Your task to perform on an android device: What's the weather going to be this weekend? Image 0: 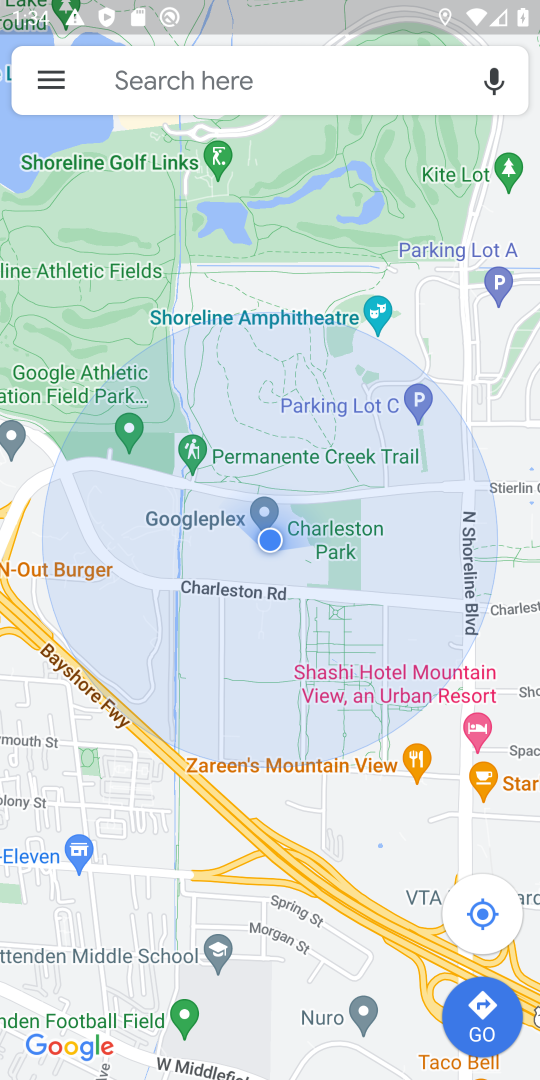
Step 0: press home button
Your task to perform on an android device: What's the weather going to be this weekend? Image 1: 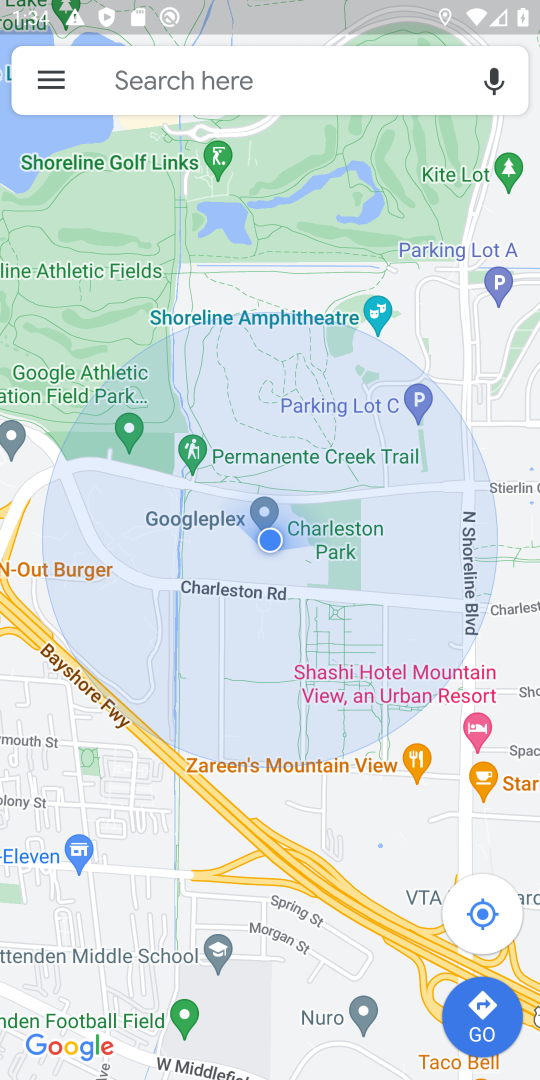
Step 1: press home button
Your task to perform on an android device: What's the weather going to be this weekend? Image 2: 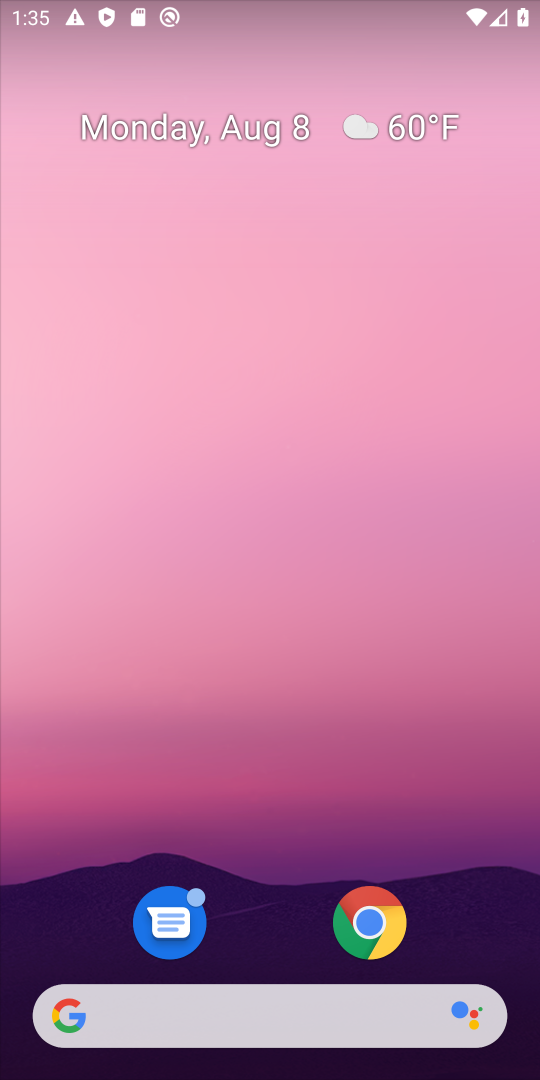
Step 2: click (423, 117)
Your task to perform on an android device: What's the weather going to be this weekend? Image 3: 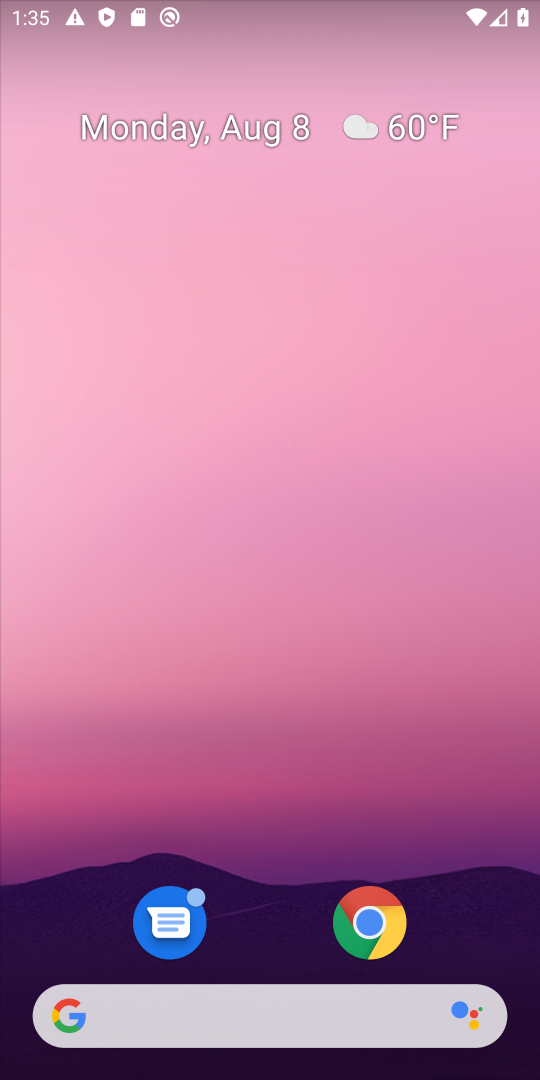
Step 3: click (380, 121)
Your task to perform on an android device: What's the weather going to be this weekend? Image 4: 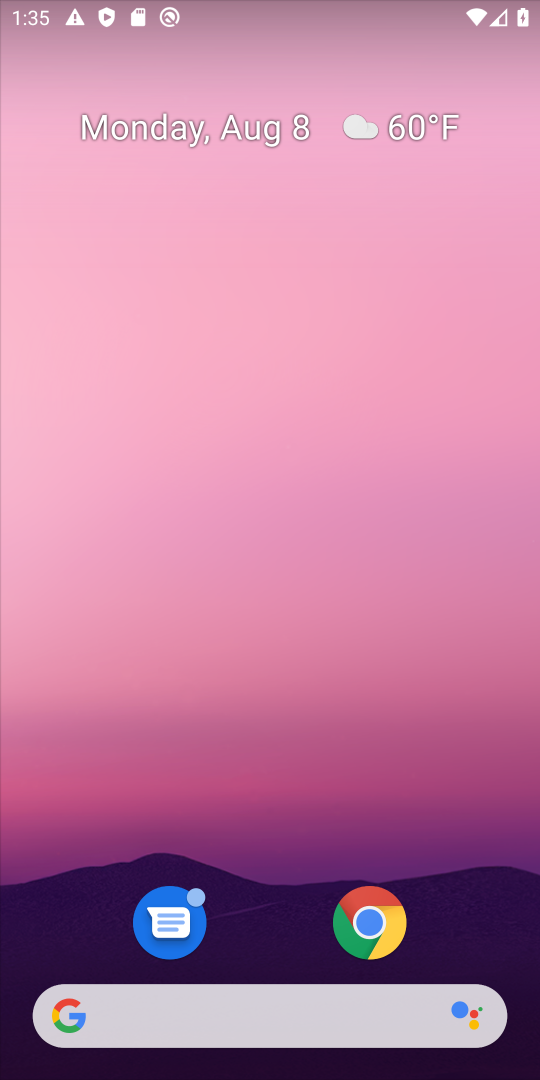
Step 4: click (409, 123)
Your task to perform on an android device: What's the weather going to be this weekend? Image 5: 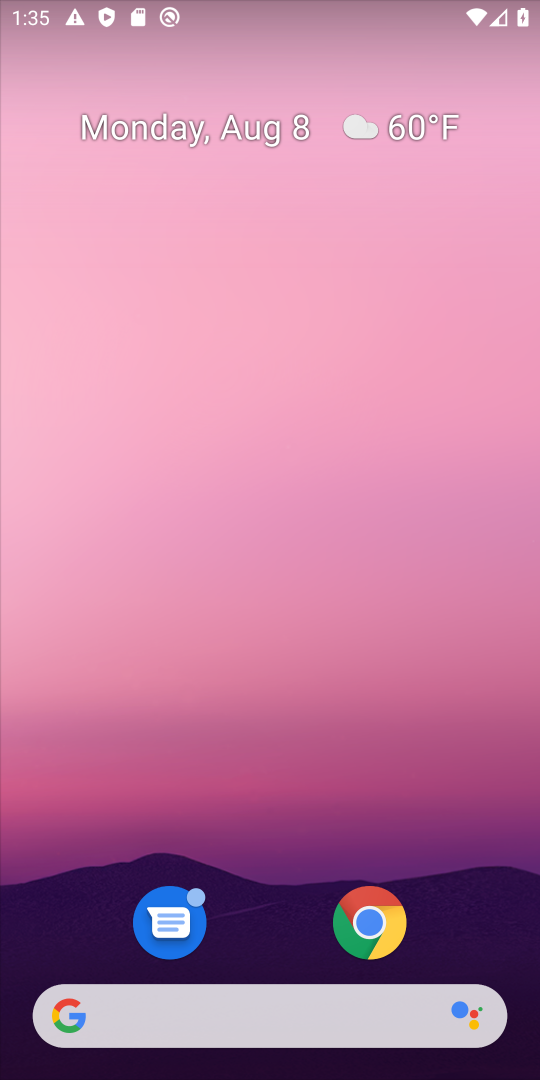
Step 5: drag from (323, 710) to (530, 53)
Your task to perform on an android device: What's the weather going to be this weekend? Image 6: 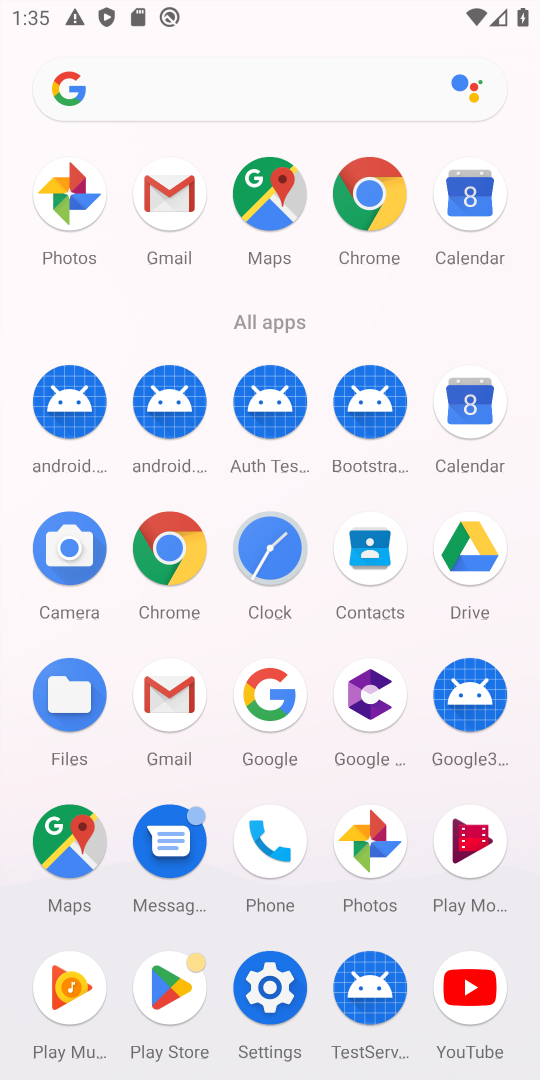
Step 6: click (378, 190)
Your task to perform on an android device: What's the weather going to be this weekend? Image 7: 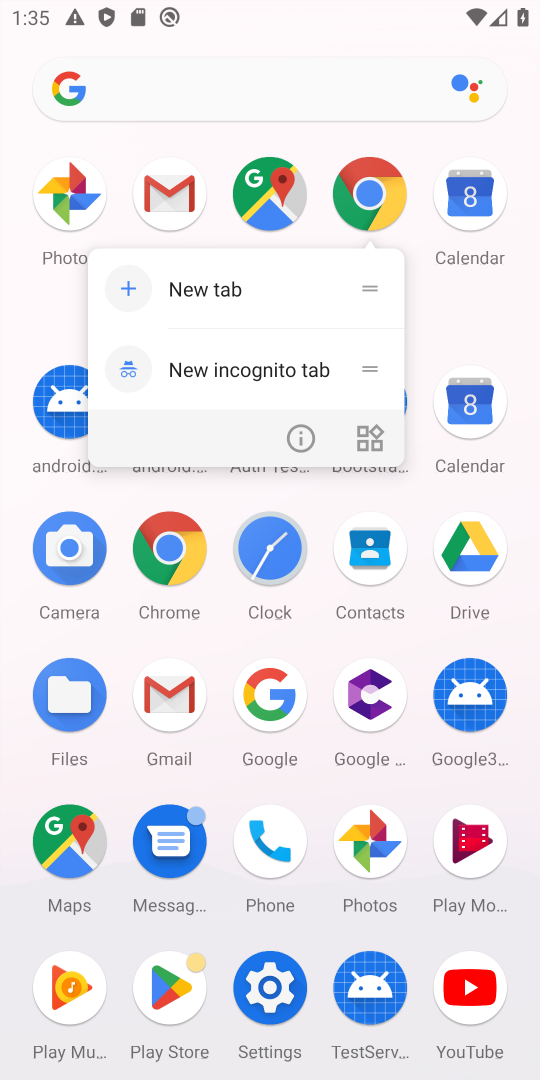
Step 7: click (362, 201)
Your task to perform on an android device: What's the weather going to be this weekend? Image 8: 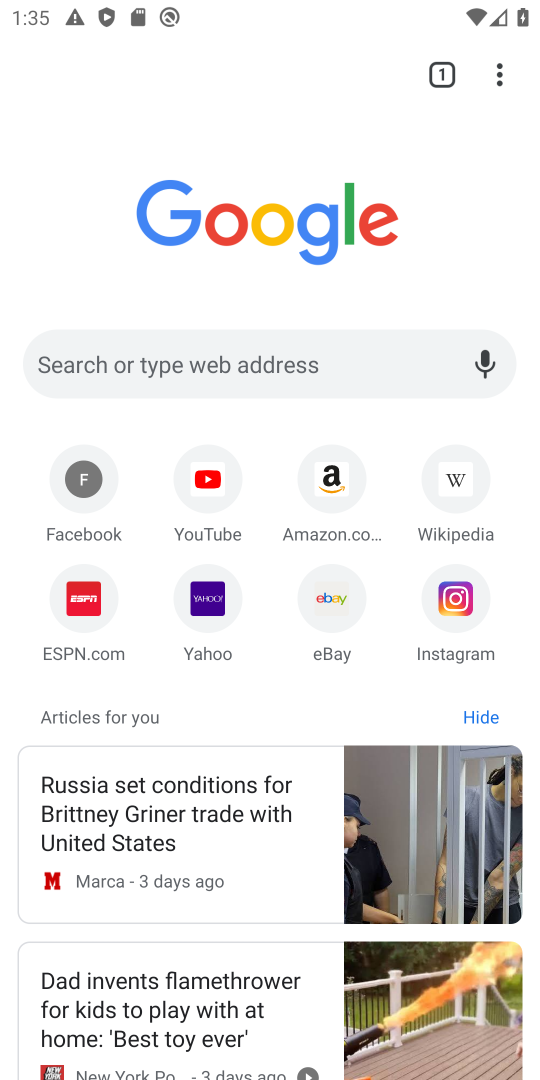
Step 8: click (274, 372)
Your task to perform on an android device: What's the weather going to be this weekend? Image 9: 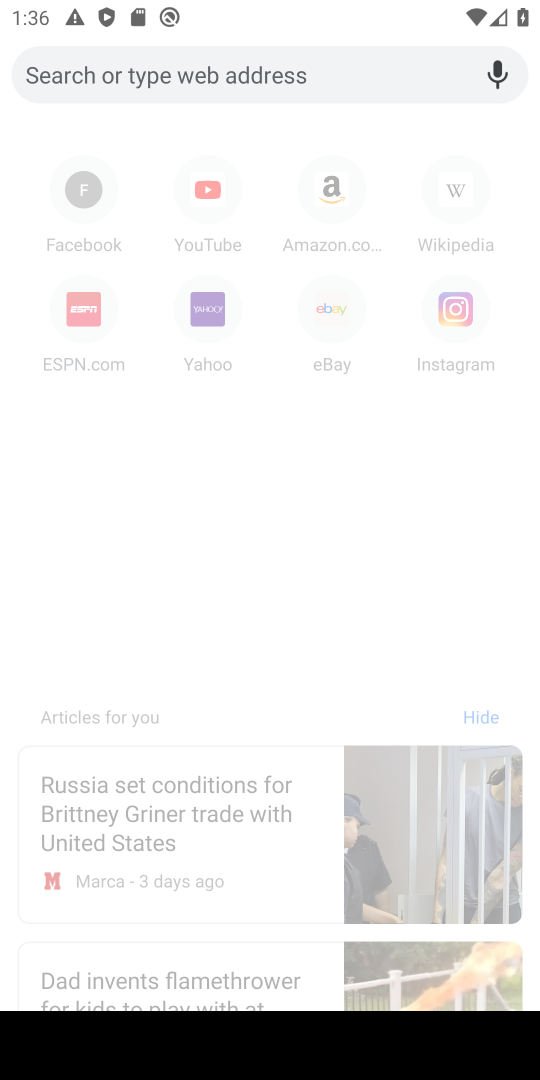
Step 9: type "weather"
Your task to perform on an android device: What's the weather going to be this weekend? Image 10: 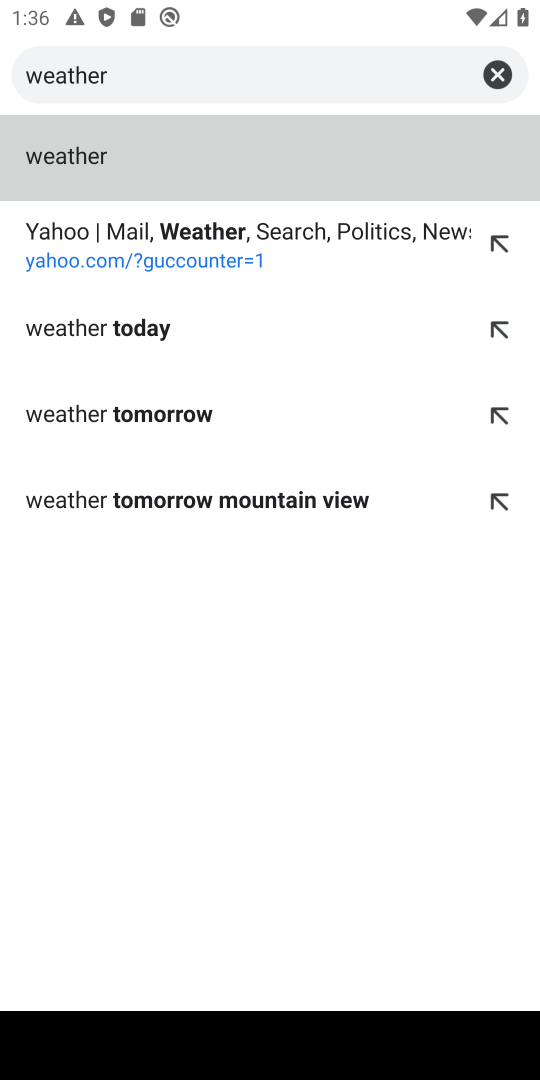
Step 10: click (56, 150)
Your task to perform on an android device: What's the weather going to be this weekend? Image 11: 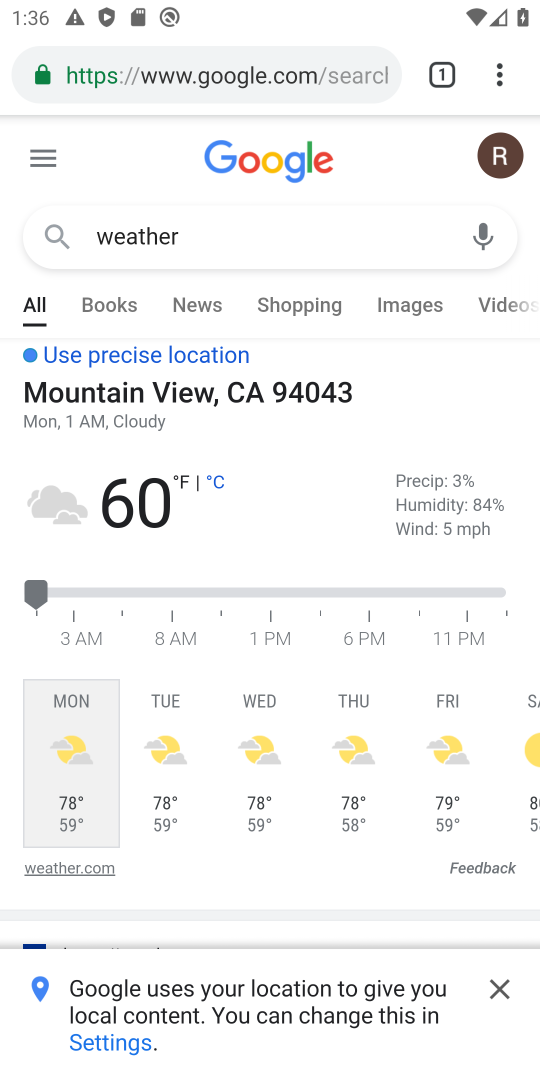
Step 11: click (518, 744)
Your task to perform on an android device: What's the weather going to be this weekend? Image 12: 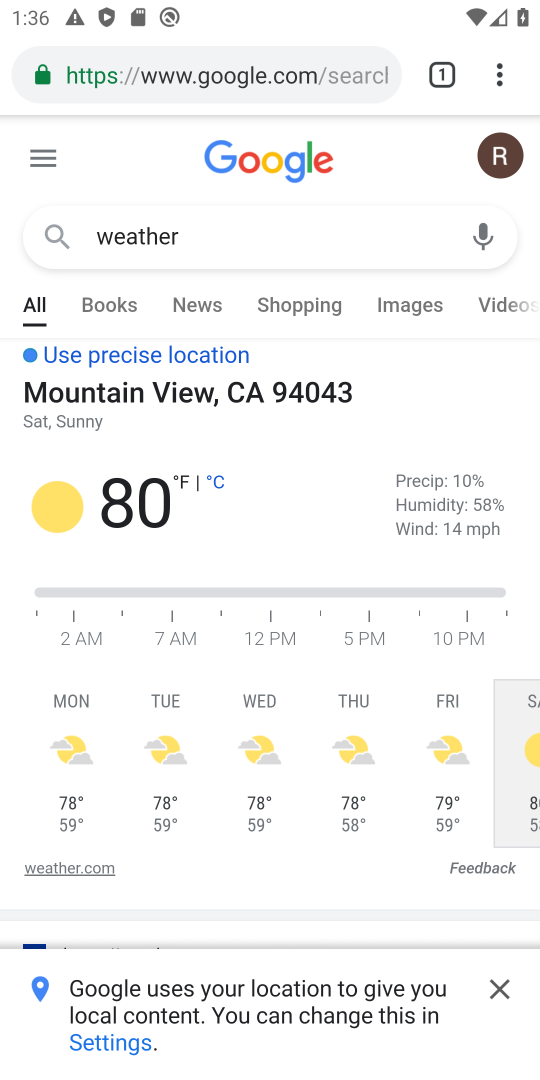
Step 12: task complete